Your task to perform on an android device: check google app version Image 0: 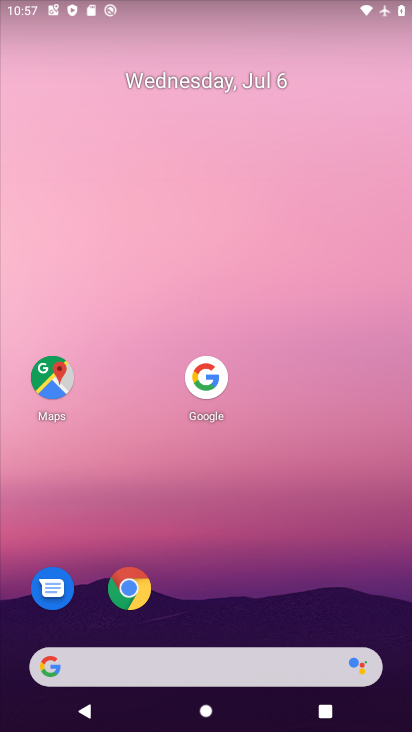
Step 0: drag from (188, 639) to (268, 78)
Your task to perform on an android device: check google app version Image 1: 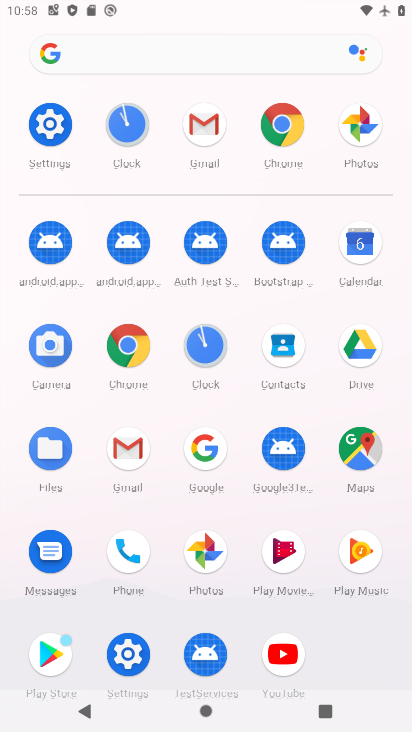
Step 1: click (203, 450)
Your task to perform on an android device: check google app version Image 2: 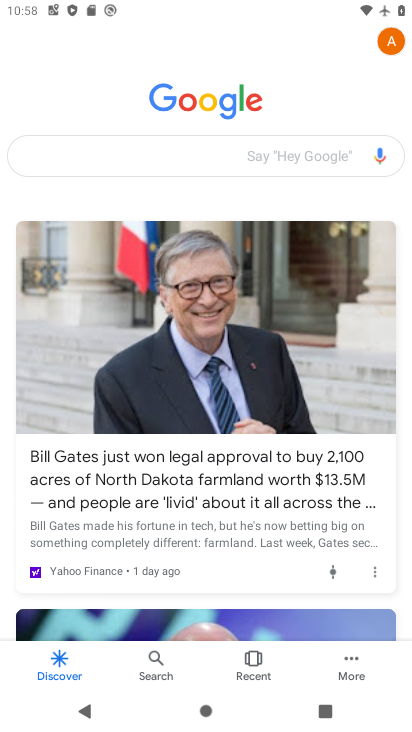
Step 2: press back button
Your task to perform on an android device: check google app version Image 3: 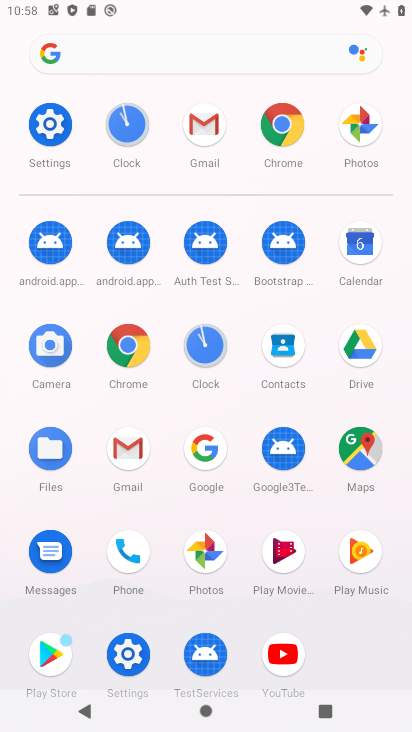
Step 3: drag from (200, 452) to (247, 438)
Your task to perform on an android device: check google app version Image 4: 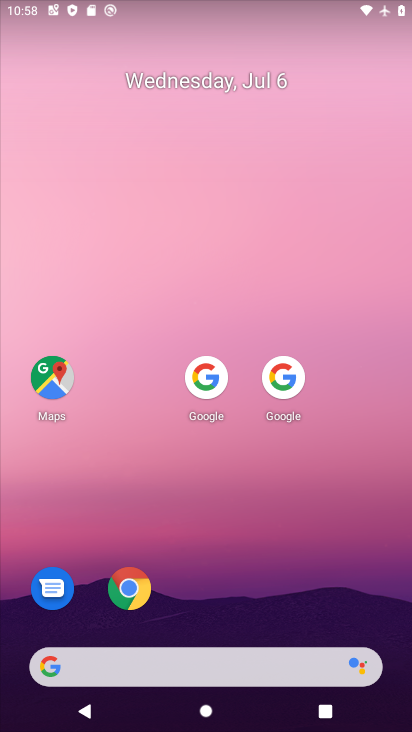
Step 4: drag from (207, 383) to (223, 342)
Your task to perform on an android device: check google app version Image 5: 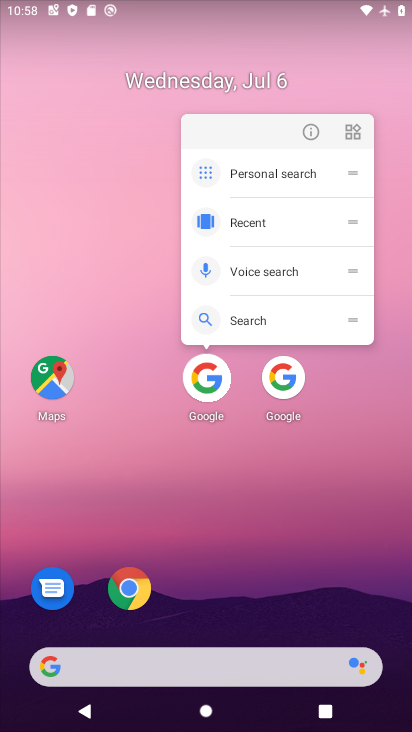
Step 5: click (310, 133)
Your task to perform on an android device: check google app version Image 6: 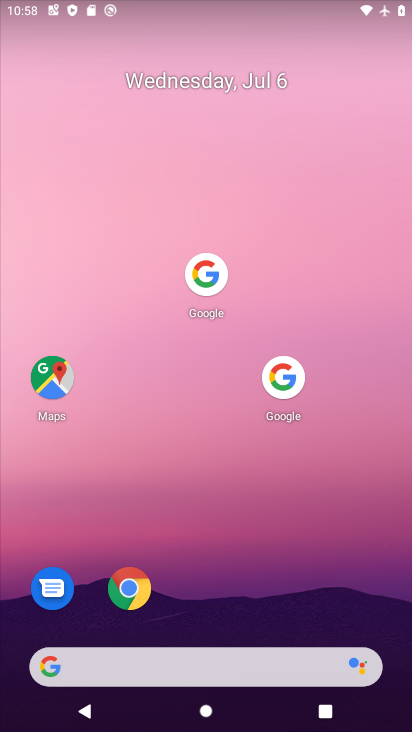
Step 6: click (286, 391)
Your task to perform on an android device: check google app version Image 7: 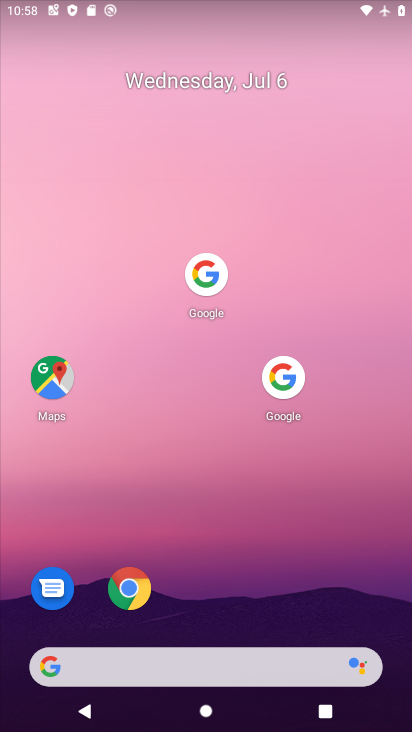
Step 7: click (242, 131)
Your task to perform on an android device: check google app version Image 8: 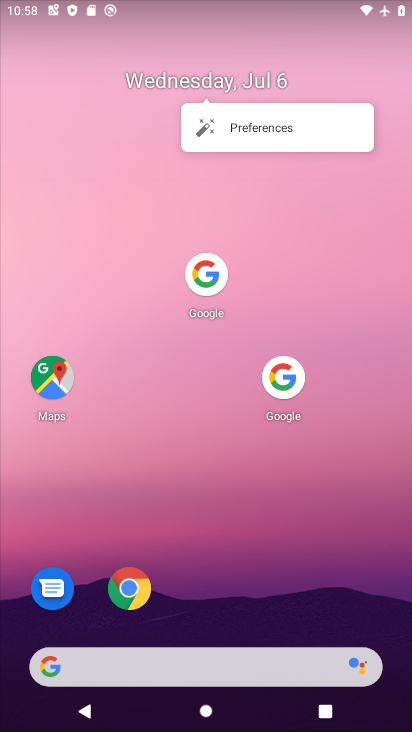
Step 8: drag from (213, 274) to (273, 133)
Your task to perform on an android device: check google app version Image 9: 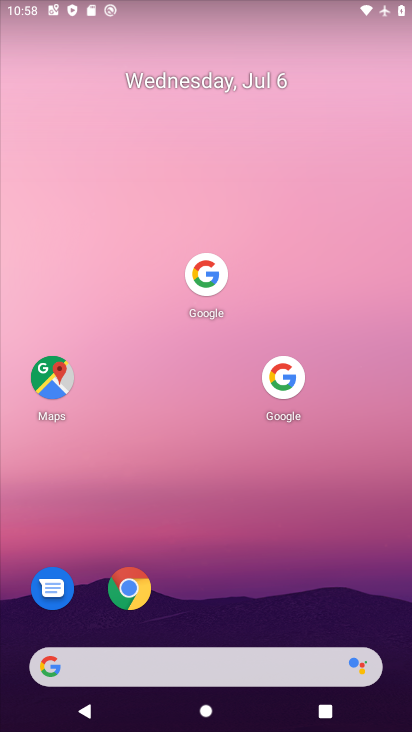
Step 9: drag from (202, 275) to (211, 1)
Your task to perform on an android device: check google app version Image 10: 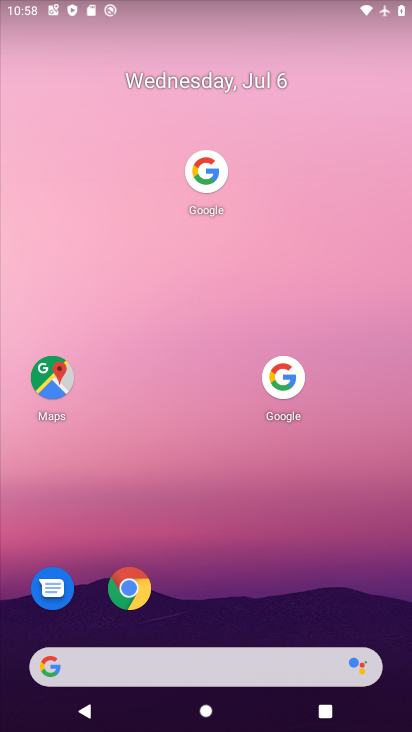
Step 10: drag from (210, 174) to (221, 51)
Your task to perform on an android device: check google app version Image 11: 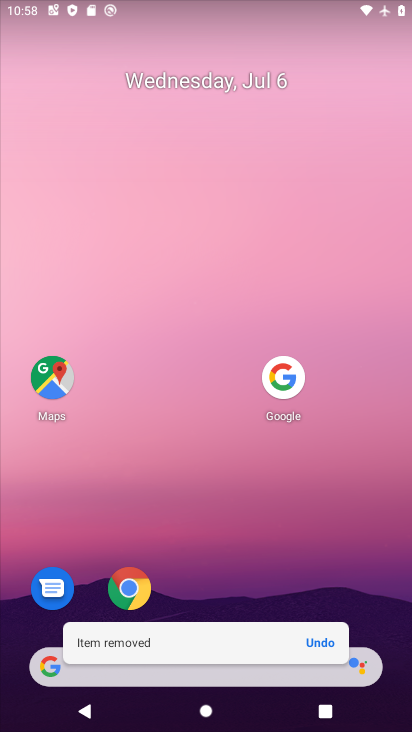
Step 11: click (281, 376)
Your task to perform on an android device: check google app version Image 12: 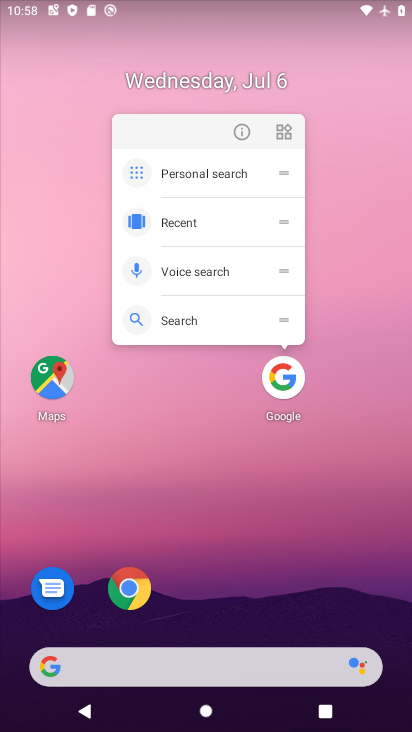
Step 12: click (240, 129)
Your task to perform on an android device: check google app version Image 13: 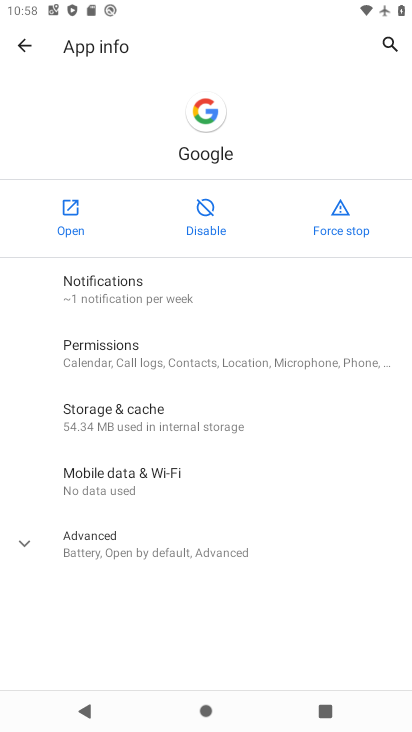
Step 13: drag from (205, 671) to (242, 268)
Your task to perform on an android device: check google app version Image 14: 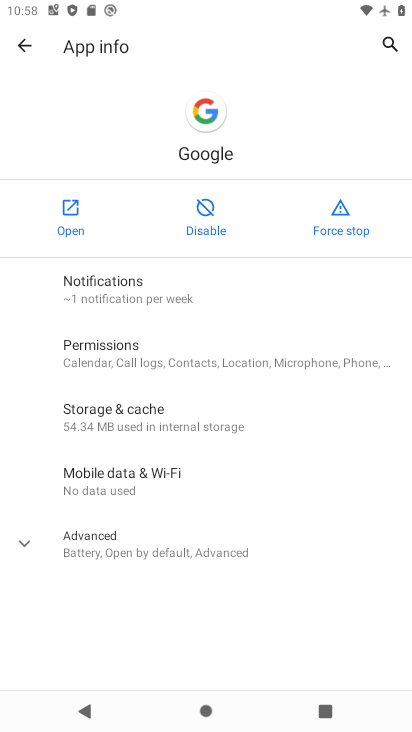
Step 14: click (95, 543)
Your task to perform on an android device: check google app version Image 15: 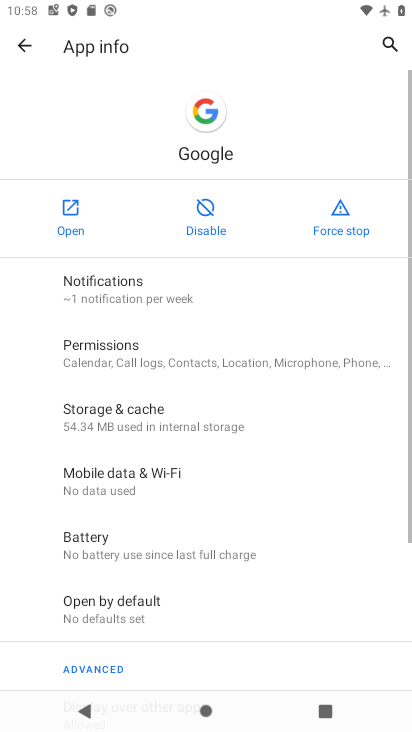
Step 15: task complete